Your task to perform on an android device: Open the web browser Image 0: 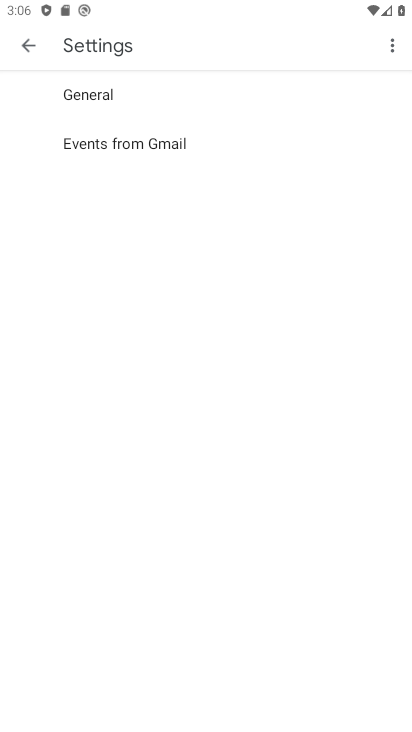
Step 0: press home button
Your task to perform on an android device: Open the web browser Image 1: 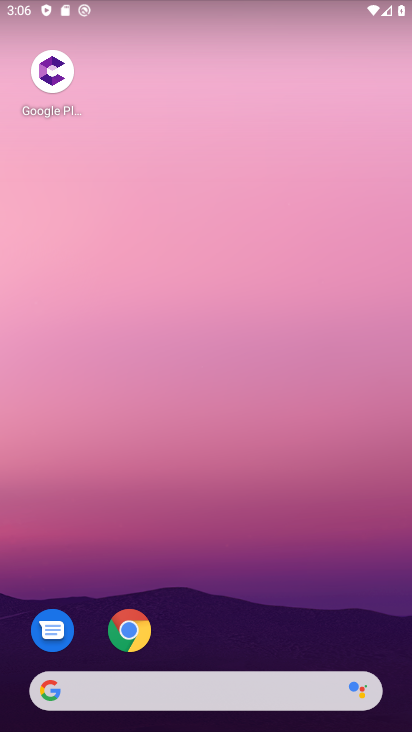
Step 1: drag from (199, 652) to (322, 214)
Your task to perform on an android device: Open the web browser Image 2: 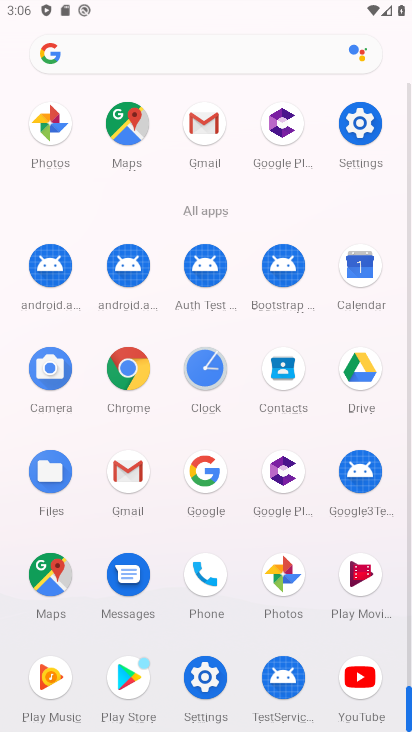
Step 2: click (213, 464)
Your task to perform on an android device: Open the web browser Image 3: 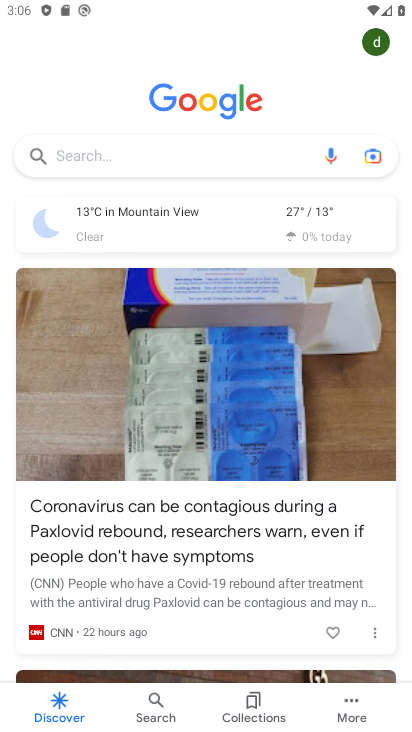
Step 3: task complete